Your task to perform on an android device: toggle sleep mode Image 0: 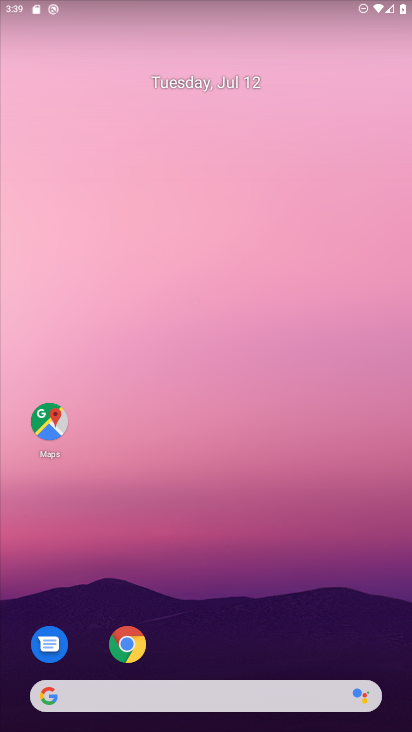
Step 0: drag from (260, 611) to (229, 143)
Your task to perform on an android device: toggle sleep mode Image 1: 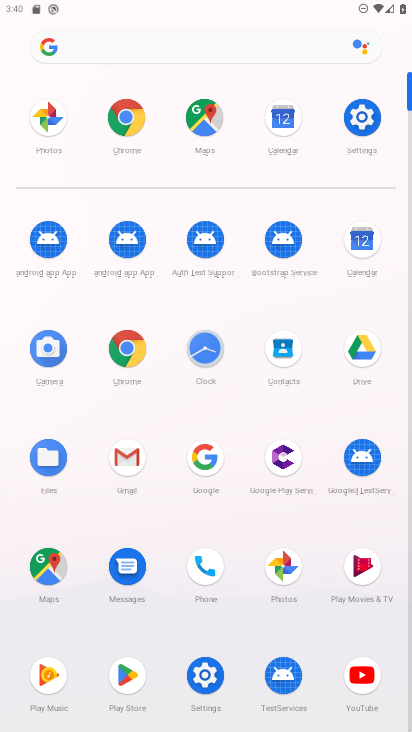
Step 1: click (365, 120)
Your task to perform on an android device: toggle sleep mode Image 2: 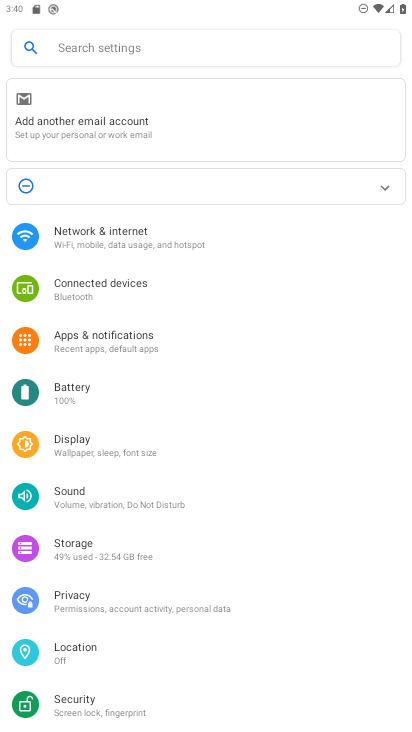
Step 2: click (112, 446)
Your task to perform on an android device: toggle sleep mode Image 3: 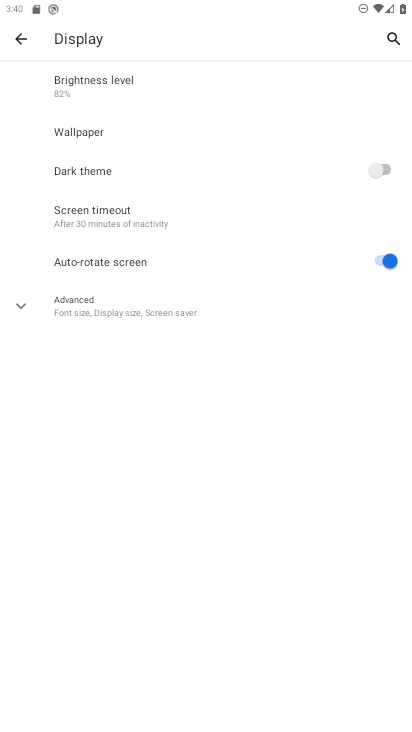
Step 3: click (130, 223)
Your task to perform on an android device: toggle sleep mode Image 4: 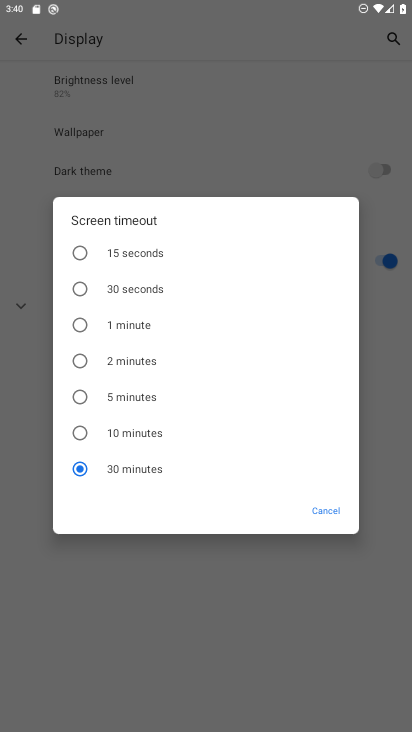
Step 4: click (120, 433)
Your task to perform on an android device: toggle sleep mode Image 5: 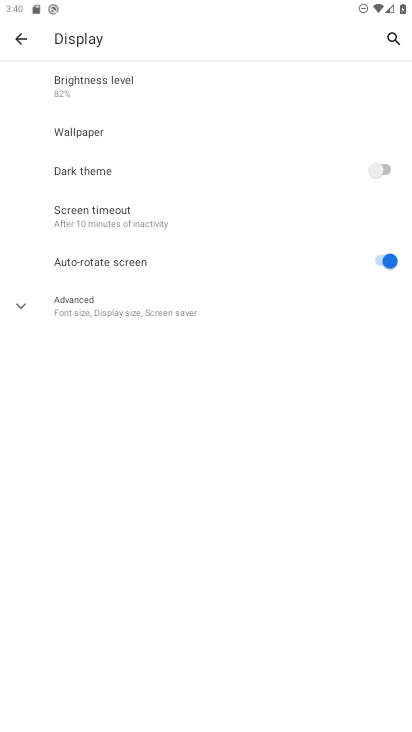
Step 5: task complete